Your task to perform on an android device: Check the weather Image 0: 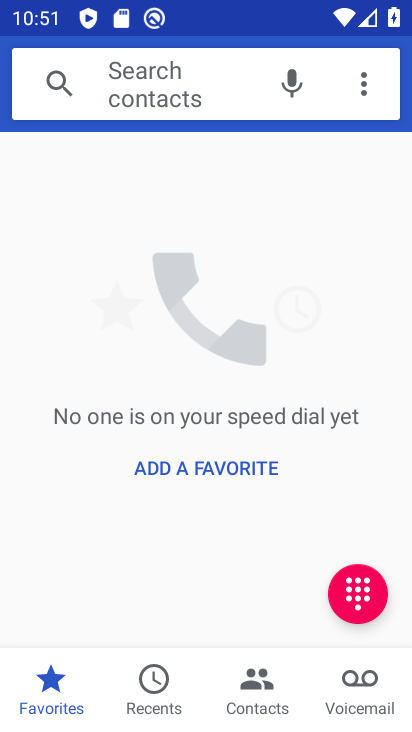
Step 0: press home button
Your task to perform on an android device: Check the weather Image 1: 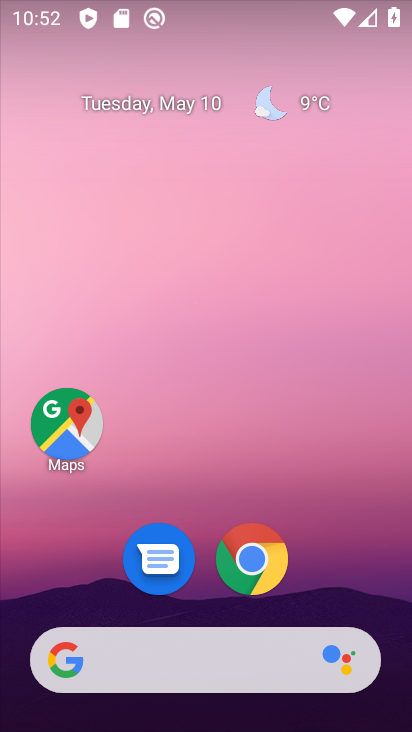
Step 1: click (253, 570)
Your task to perform on an android device: Check the weather Image 2: 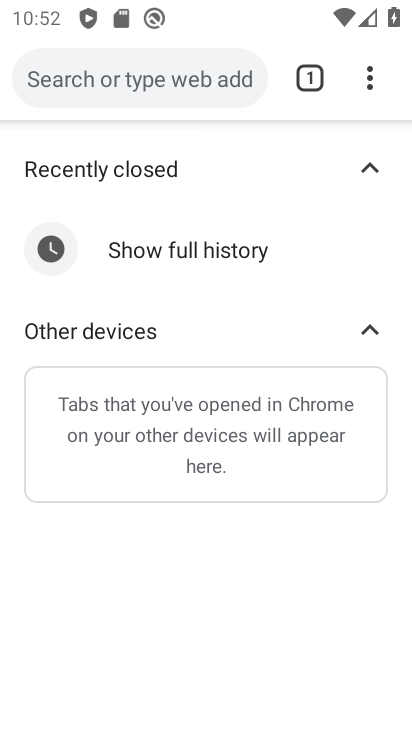
Step 2: click (168, 77)
Your task to perform on an android device: Check the weather Image 3: 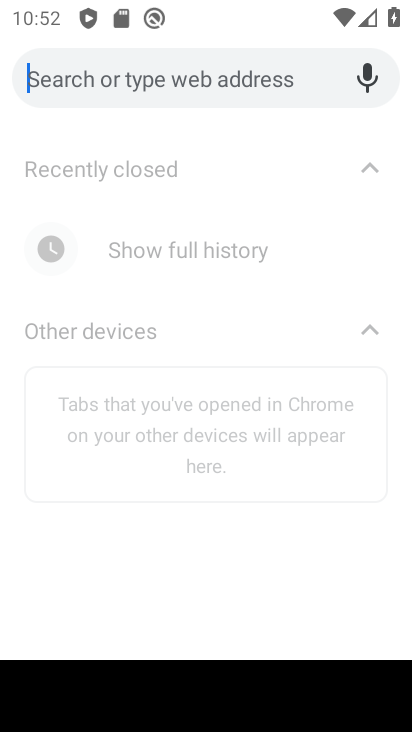
Step 3: type " weather"
Your task to perform on an android device: Check the weather Image 4: 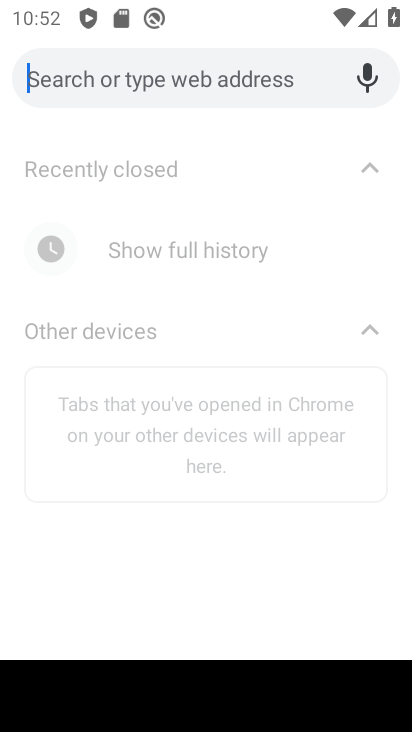
Step 4: click (224, 311)
Your task to perform on an android device: Check the weather Image 5: 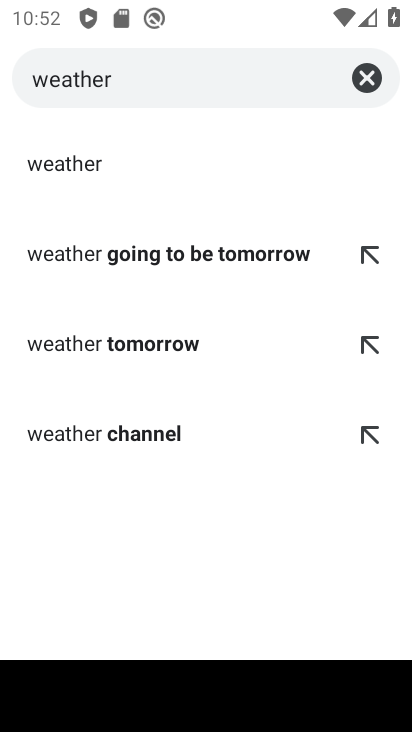
Step 5: click (44, 155)
Your task to perform on an android device: Check the weather Image 6: 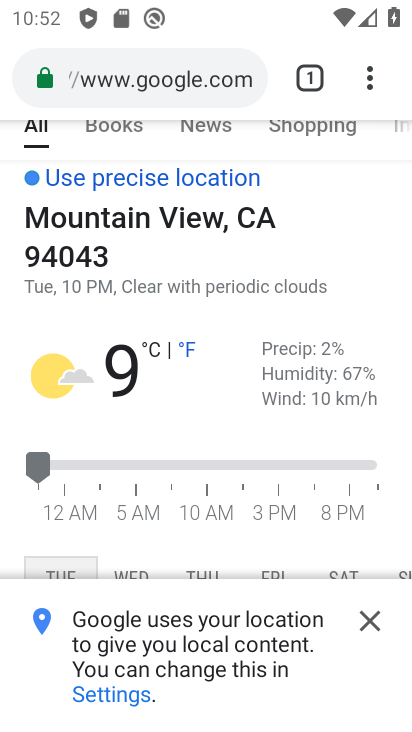
Step 6: task complete